Your task to perform on an android device: Open Chrome and go to settings Image 0: 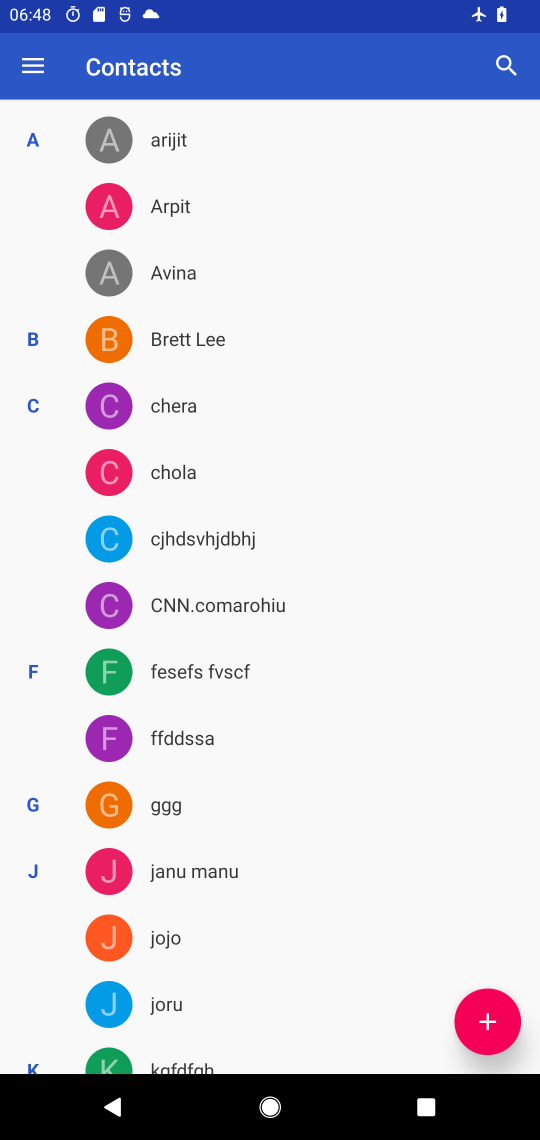
Step 0: press home button
Your task to perform on an android device: Open Chrome and go to settings Image 1: 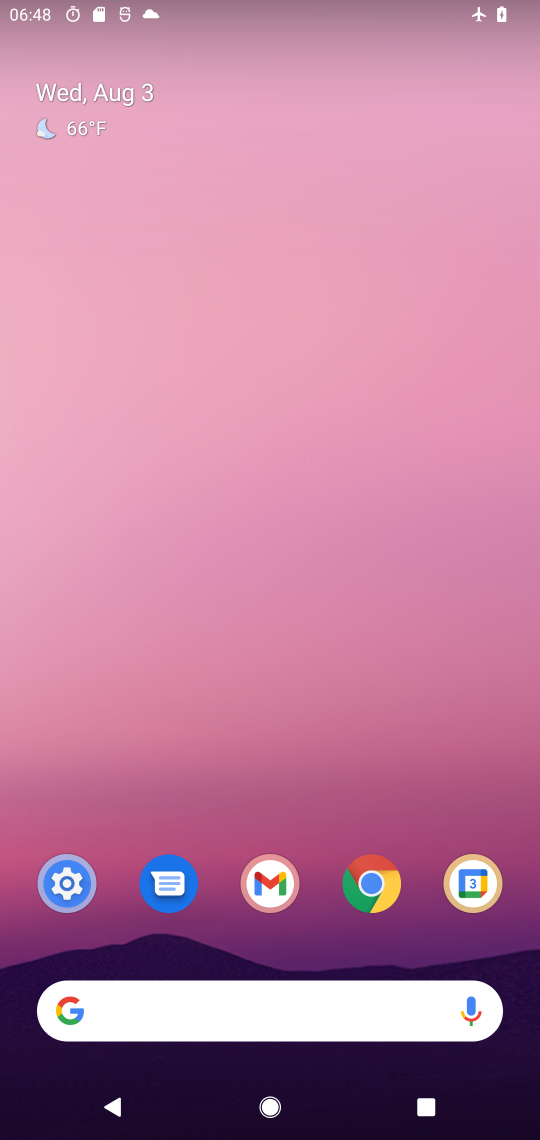
Step 1: click (364, 898)
Your task to perform on an android device: Open Chrome and go to settings Image 2: 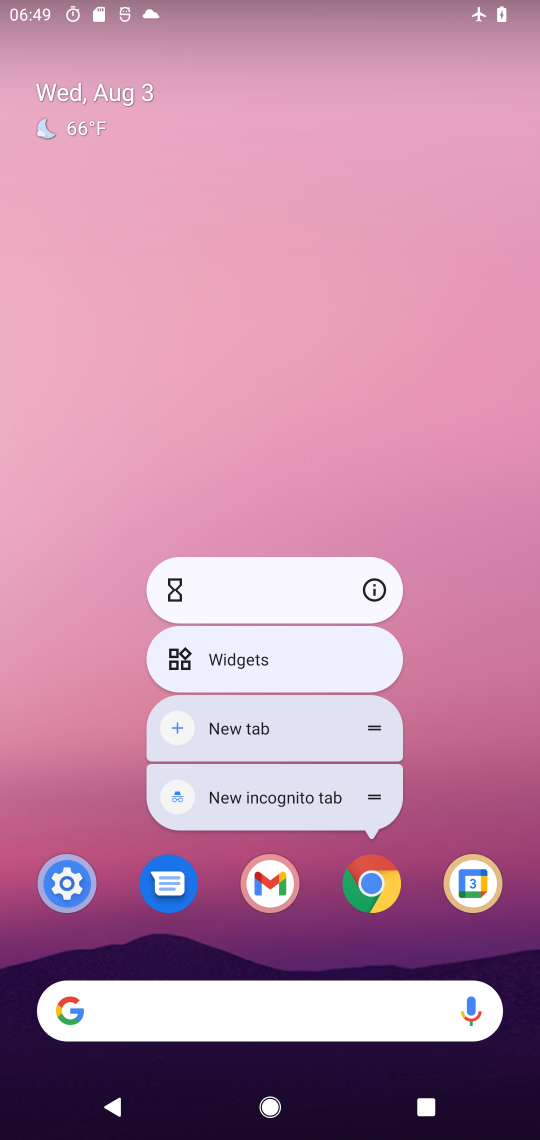
Step 2: drag from (336, 979) to (344, 464)
Your task to perform on an android device: Open Chrome and go to settings Image 3: 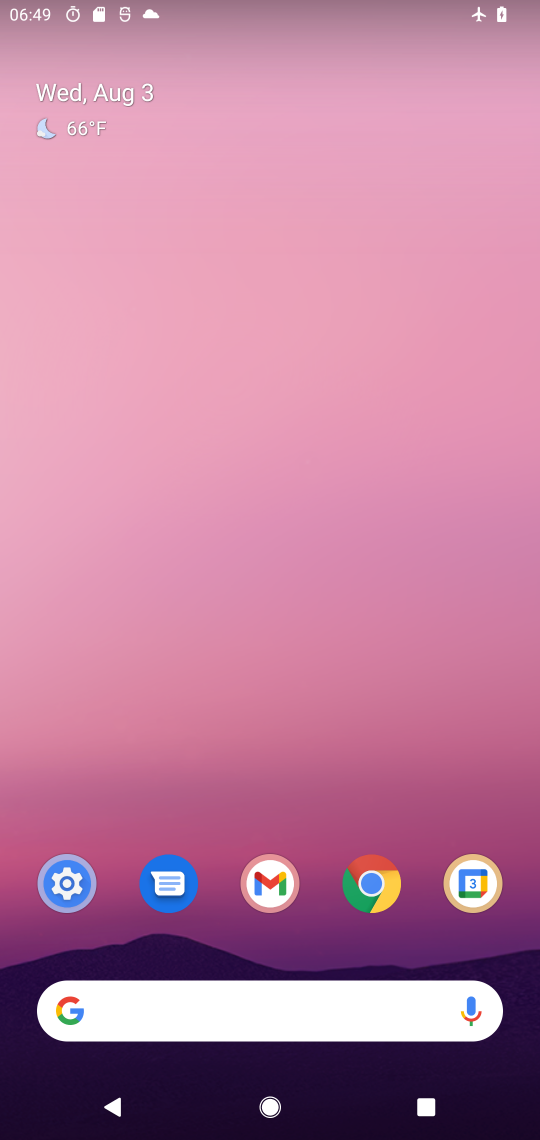
Step 3: drag from (216, 945) to (228, 154)
Your task to perform on an android device: Open Chrome and go to settings Image 4: 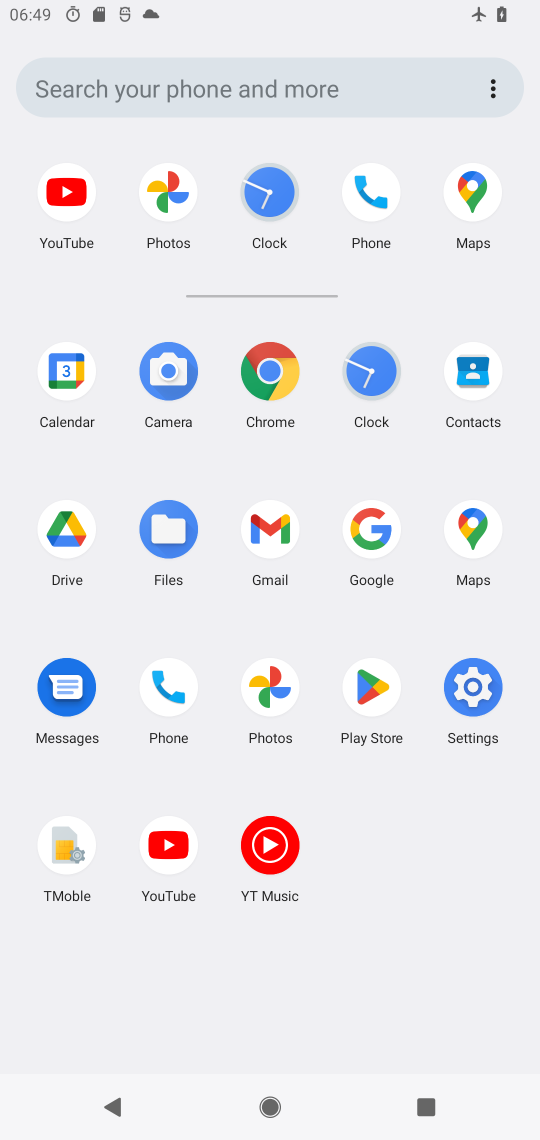
Step 4: click (260, 380)
Your task to perform on an android device: Open Chrome and go to settings Image 5: 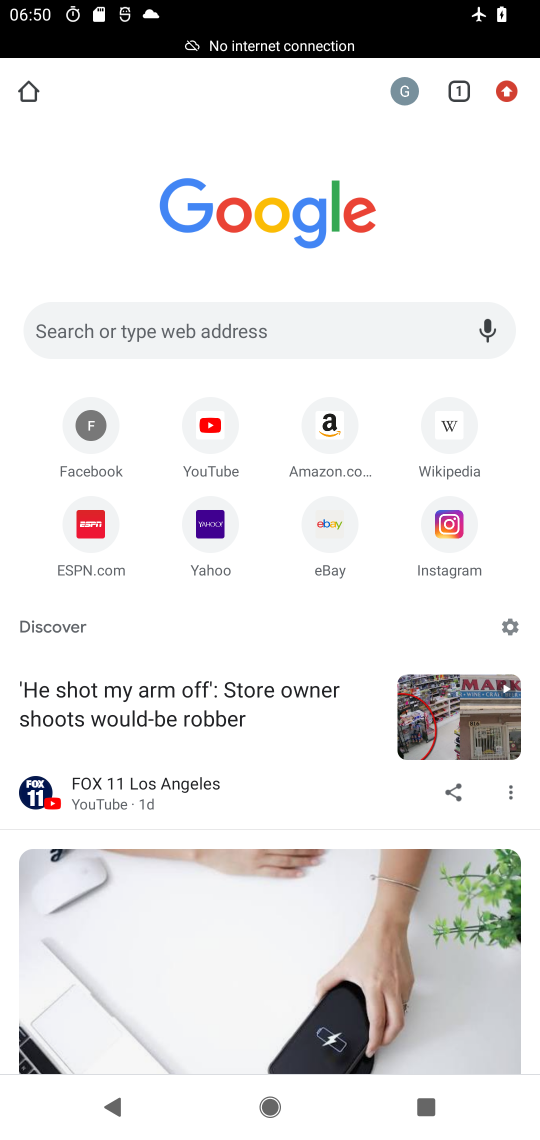
Step 5: click (506, 92)
Your task to perform on an android device: Open Chrome and go to settings Image 6: 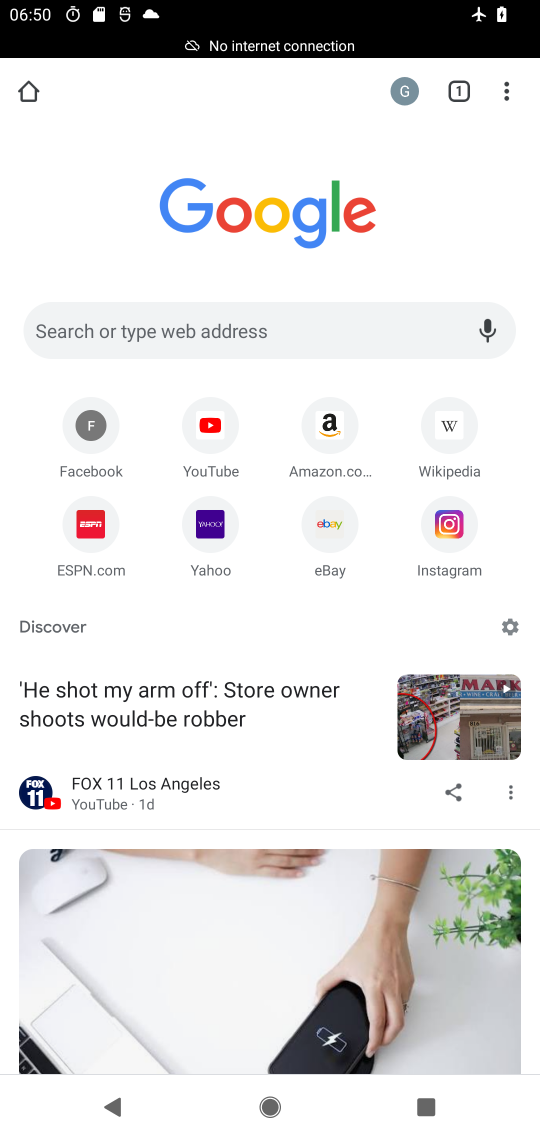
Step 6: click (509, 96)
Your task to perform on an android device: Open Chrome and go to settings Image 7: 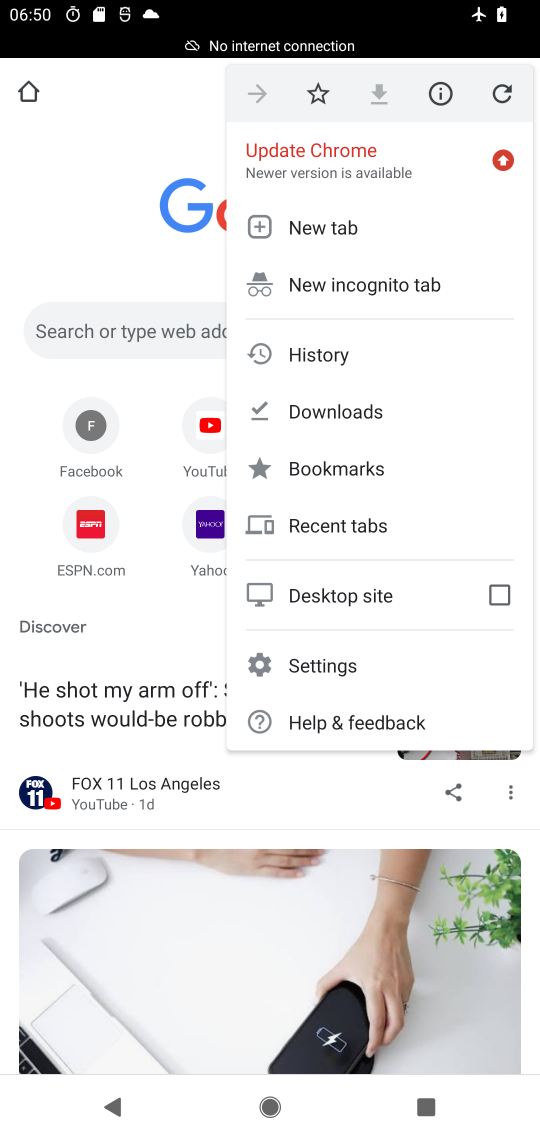
Step 7: click (339, 665)
Your task to perform on an android device: Open Chrome and go to settings Image 8: 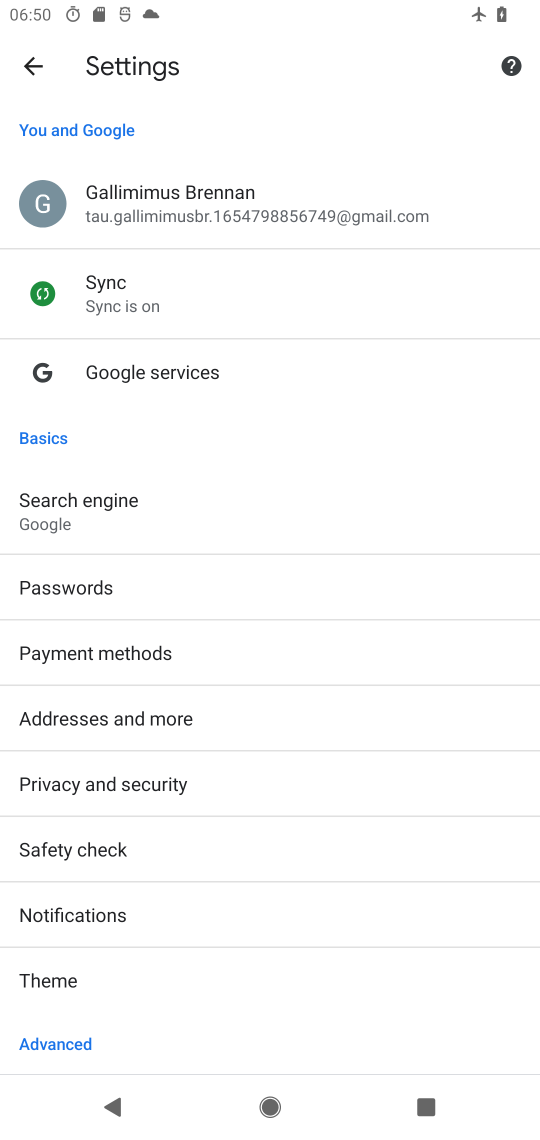
Step 8: task complete